Your task to perform on an android device: Play the last video I watched on Youtube Image 0: 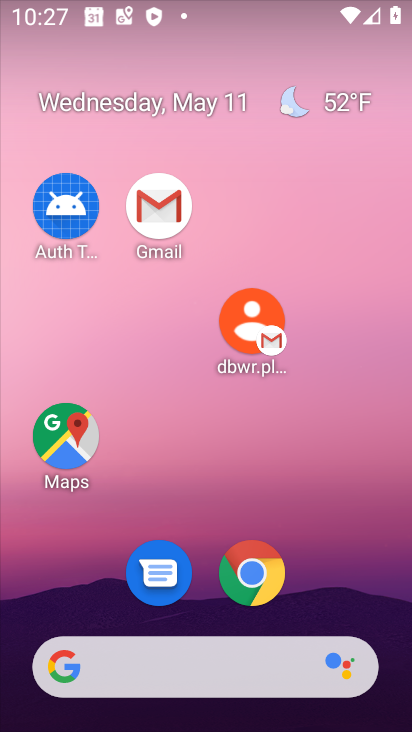
Step 0: drag from (317, 487) to (189, 129)
Your task to perform on an android device: Play the last video I watched on Youtube Image 1: 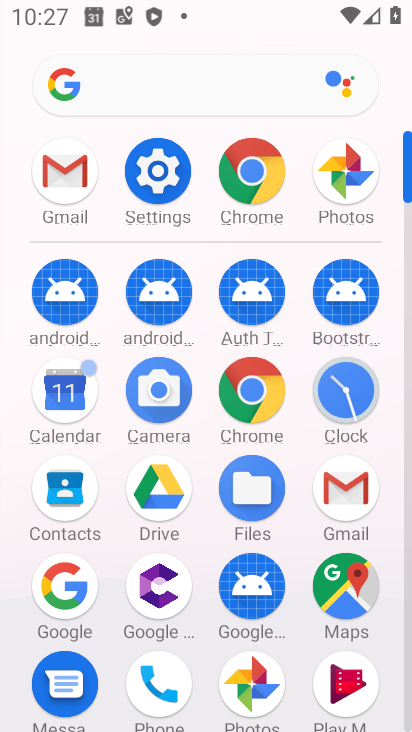
Step 1: drag from (212, 553) to (175, 107)
Your task to perform on an android device: Play the last video I watched on Youtube Image 2: 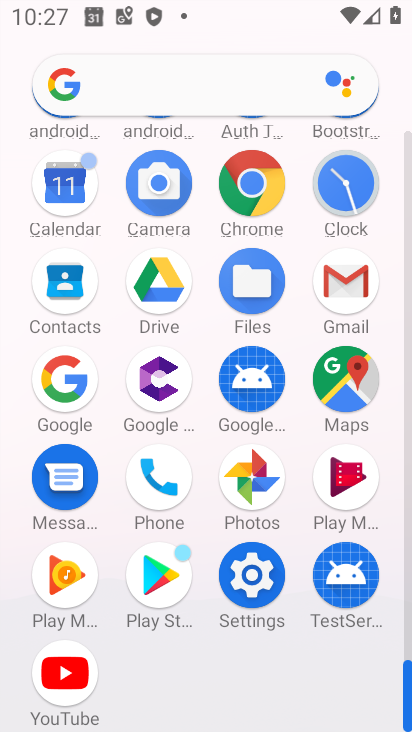
Step 2: click (50, 679)
Your task to perform on an android device: Play the last video I watched on Youtube Image 3: 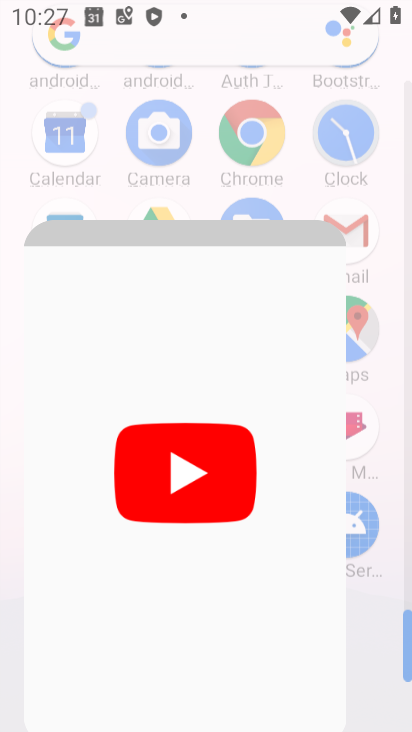
Step 3: click (53, 672)
Your task to perform on an android device: Play the last video I watched on Youtube Image 4: 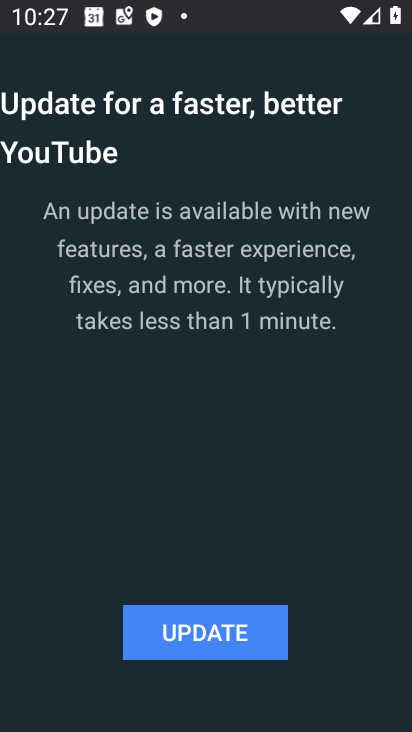
Step 4: click (214, 603)
Your task to perform on an android device: Play the last video I watched on Youtube Image 5: 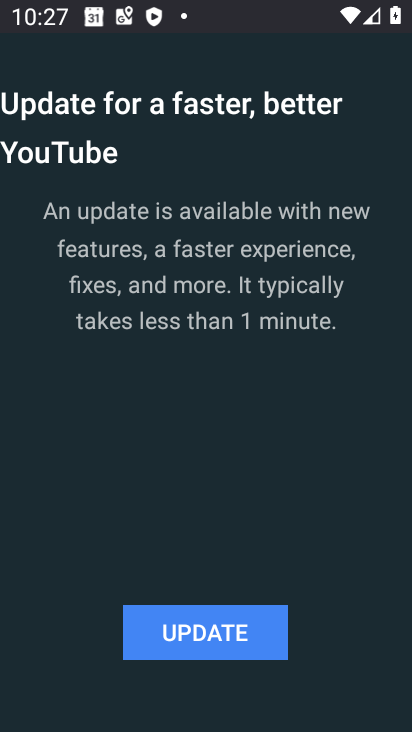
Step 5: click (215, 602)
Your task to perform on an android device: Play the last video I watched on Youtube Image 6: 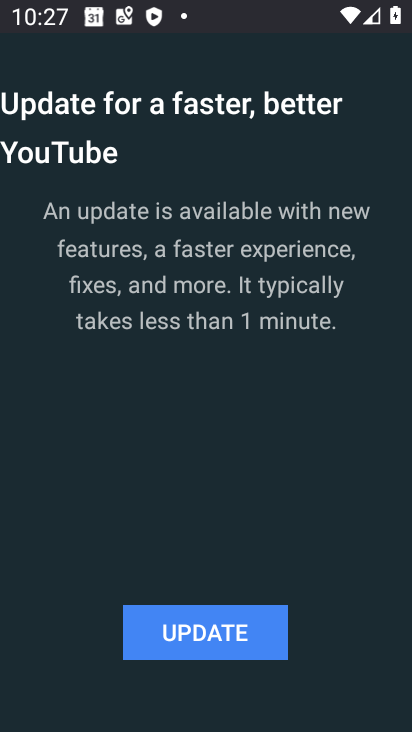
Step 6: click (215, 602)
Your task to perform on an android device: Play the last video I watched on Youtube Image 7: 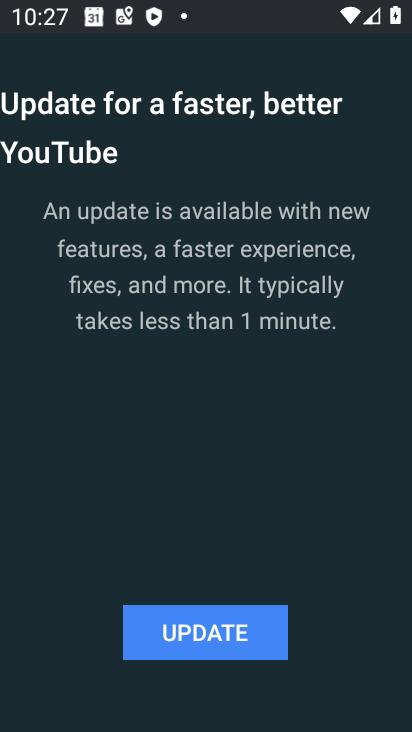
Step 7: click (213, 623)
Your task to perform on an android device: Play the last video I watched on Youtube Image 8: 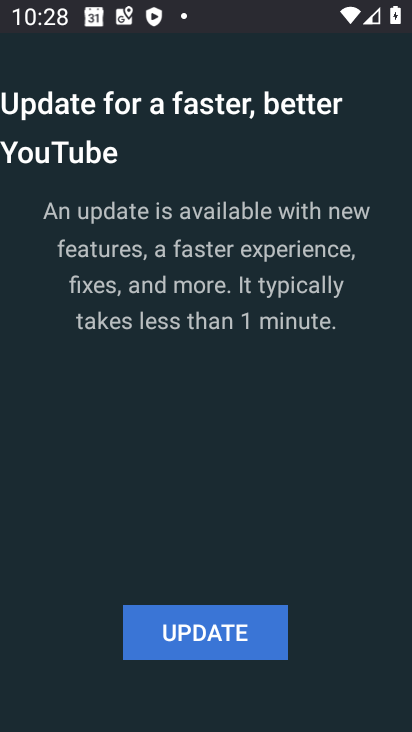
Step 8: click (205, 623)
Your task to perform on an android device: Play the last video I watched on Youtube Image 9: 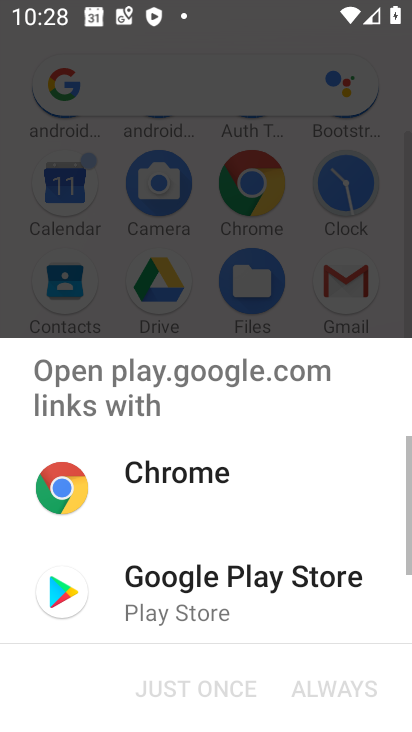
Step 9: click (203, 624)
Your task to perform on an android device: Play the last video I watched on Youtube Image 10: 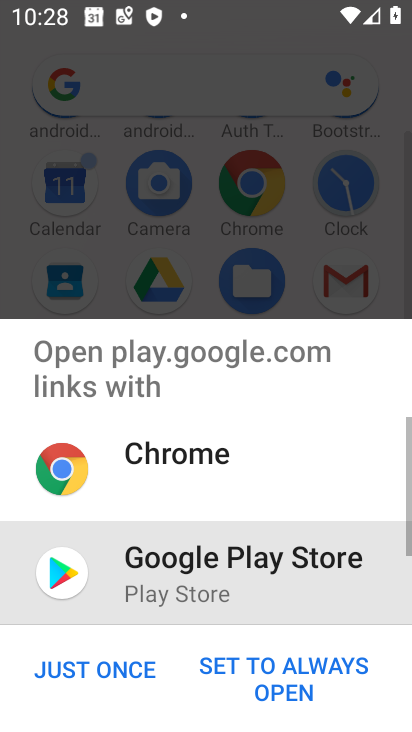
Step 10: click (166, 587)
Your task to perform on an android device: Play the last video I watched on Youtube Image 11: 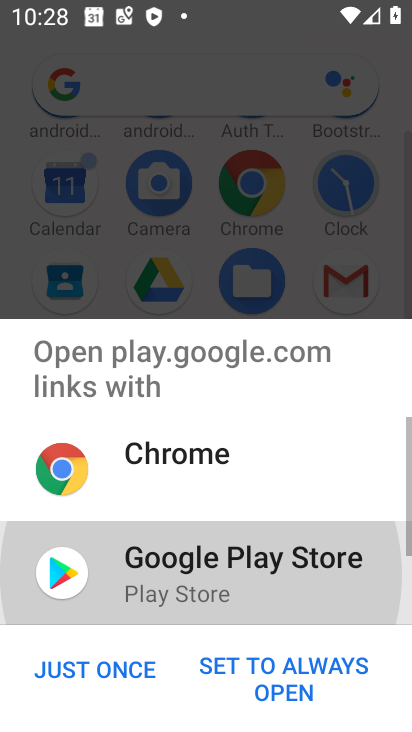
Step 11: click (146, 586)
Your task to perform on an android device: Play the last video I watched on Youtube Image 12: 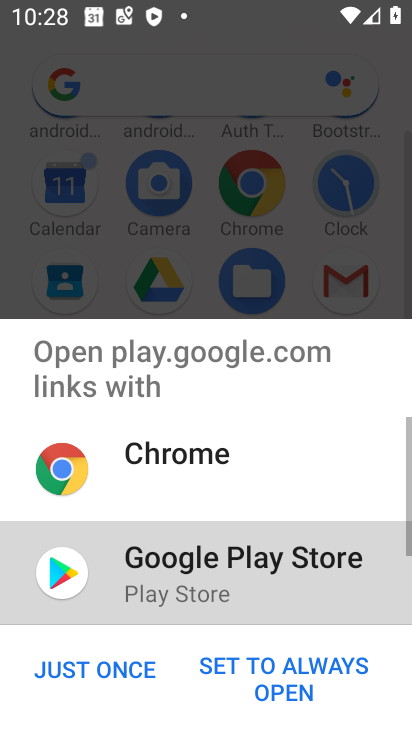
Step 12: click (146, 586)
Your task to perform on an android device: Play the last video I watched on Youtube Image 13: 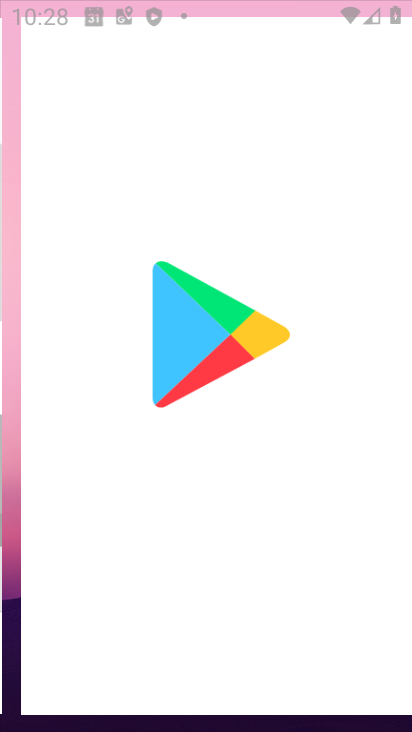
Step 13: click (146, 585)
Your task to perform on an android device: Play the last video I watched on Youtube Image 14: 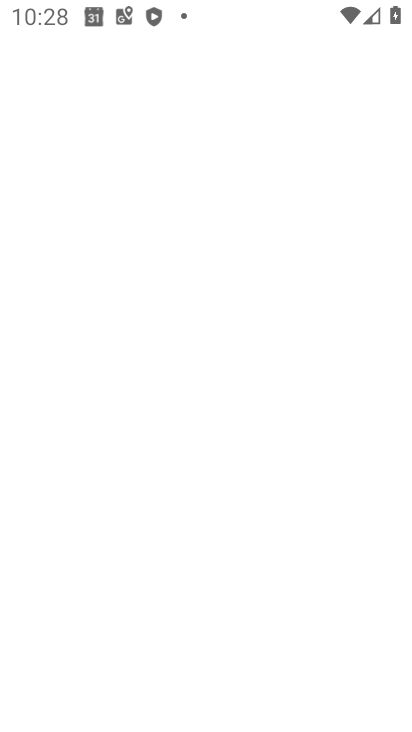
Step 14: click (146, 590)
Your task to perform on an android device: Play the last video I watched on Youtube Image 15: 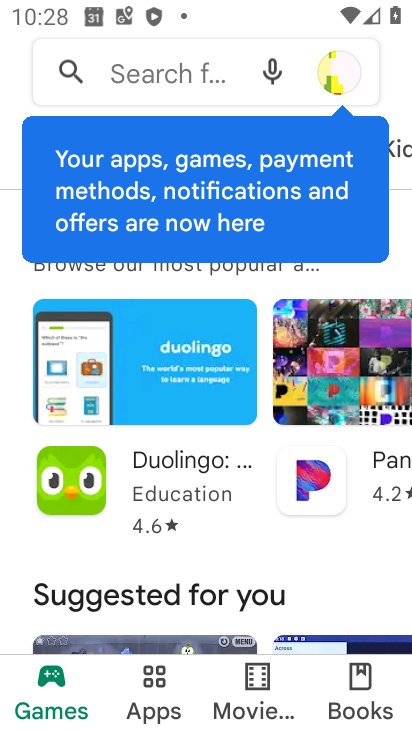
Step 15: press home button
Your task to perform on an android device: Play the last video I watched on Youtube Image 16: 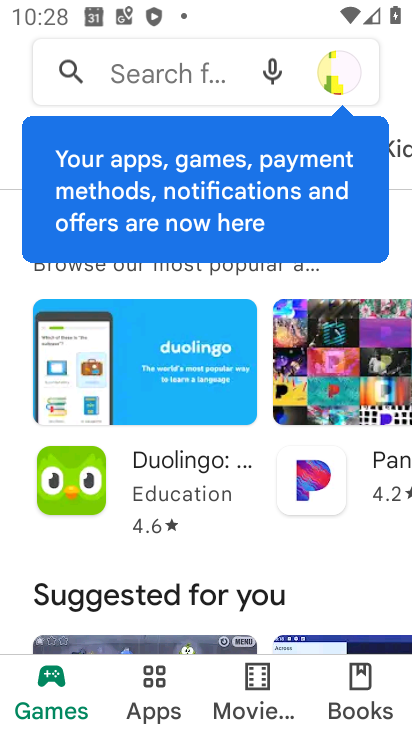
Step 16: press home button
Your task to perform on an android device: Play the last video I watched on Youtube Image 17: 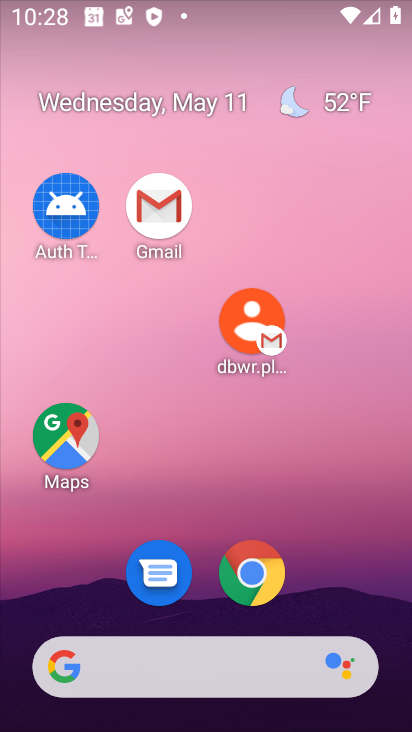
Step 17: drag from (395, 590) to (77, 127)
Your task to perform on an android device: Play the last video I watched on Youtube Image 18: 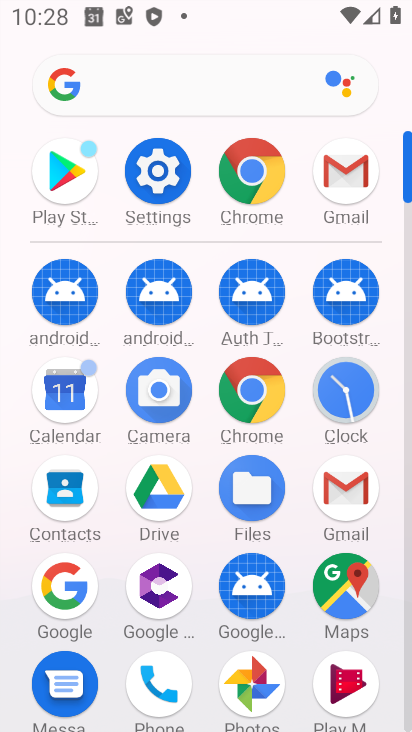
Step 18: drag from (299, 606) to (242, 253)
Your task to perform on an android device: Play the last video I watched on Youtube Image 19: 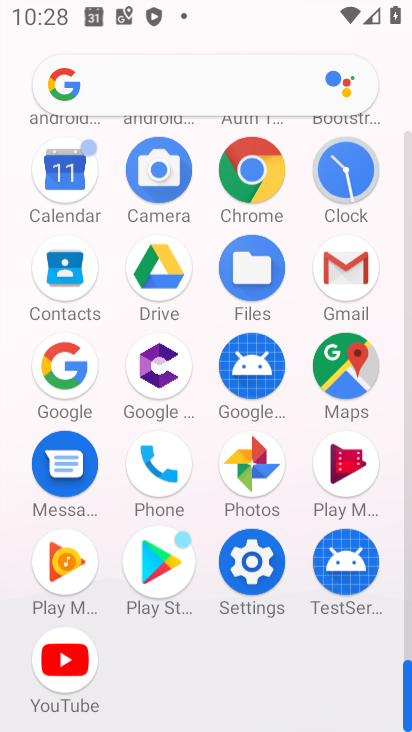
Step 19: drag from (270, 470) to (283, 29)
Your task to perform on an android device: Play the last video I watched on Youtube Image 20: 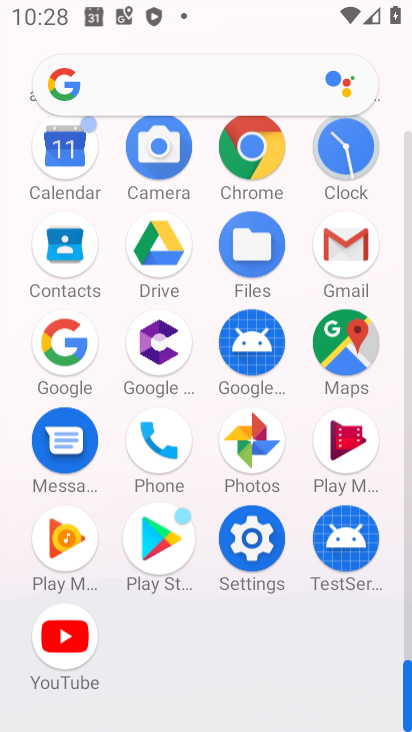
Step 20: drag from (301, 521) to (275, 184)
Your task to perform on an android device: Play the last video I watched on Youtube Image 21: 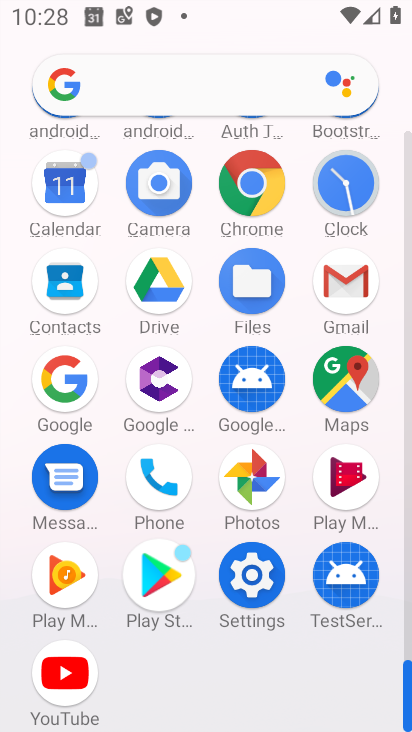
Step 21: click (74, 680)
Your task to perform on an android device: Play the last video I watched on Youtube Image 22: 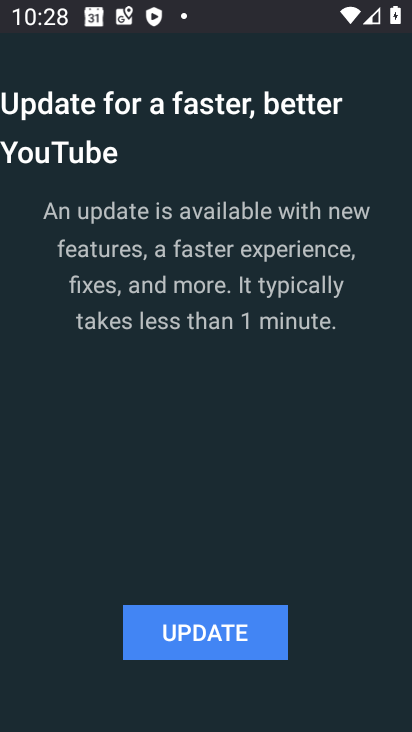
Step 22: click (182, 618)
Your task to perform on an android device: Play the last video I watched on Youtube Image 23: 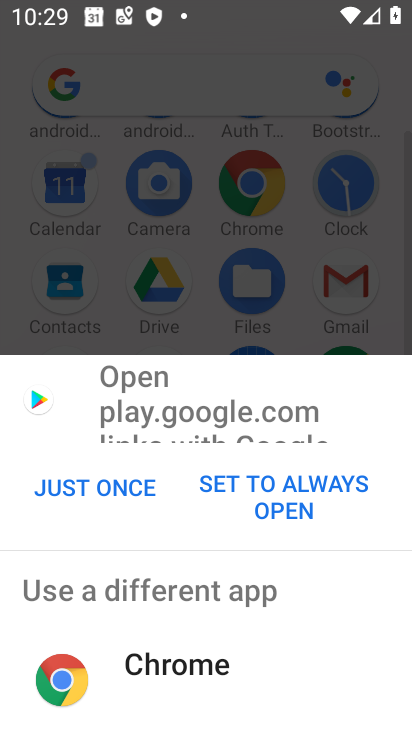
Step 23: click (175, 653)
Your task to perform on an android device: Play the last video I watched on Youtube Image 24: 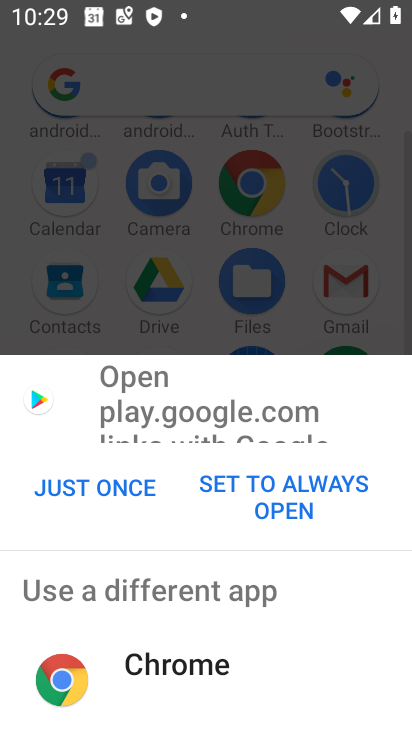
Step 24: click (175, 653)
Your task to perform on an android device: Play the last video I watched on Youtube Image 25: 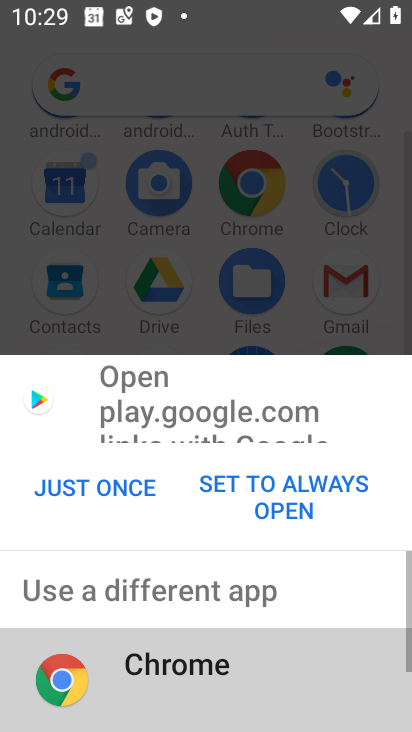
Step 25: click (176, 651)
Your task to perform on an android device: Play the last video I watched on Youtube Image 26: 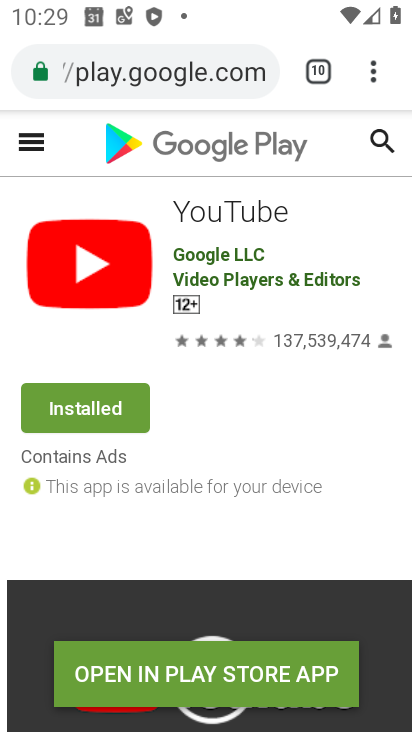
Step 26: press back button
Your task to perform on an android device: Play the last video I watched on Youtube Image 27: 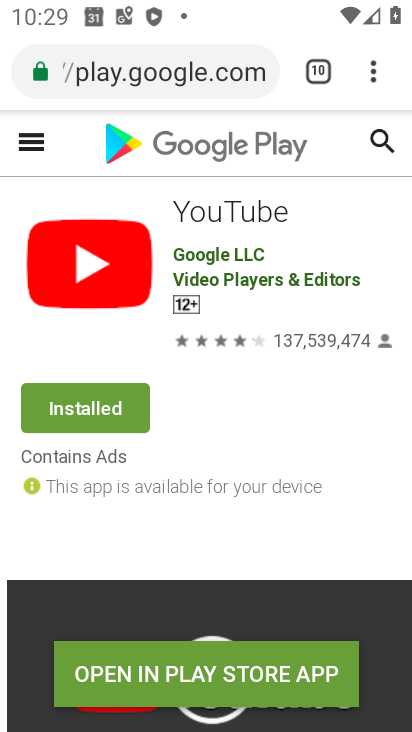
Step 27: press back button
Your task to perform on an android device: Play the last video I watched on Youtube Image 28: 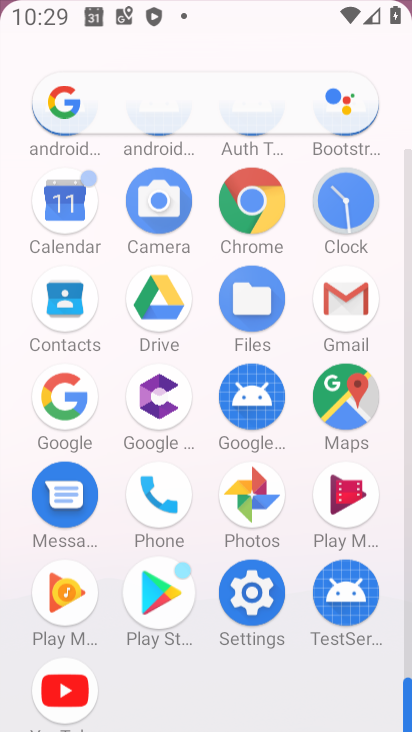
Step 28: press back button
Your task to perform on an android device: Play the last video I watched on Youtube Image 29: 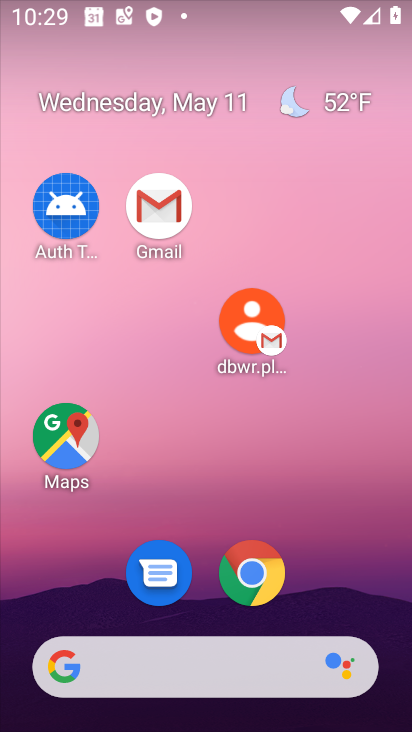
Step 29: press home button
Your task to perform on an android device: Play the last video I watched on Youtube Image 30: 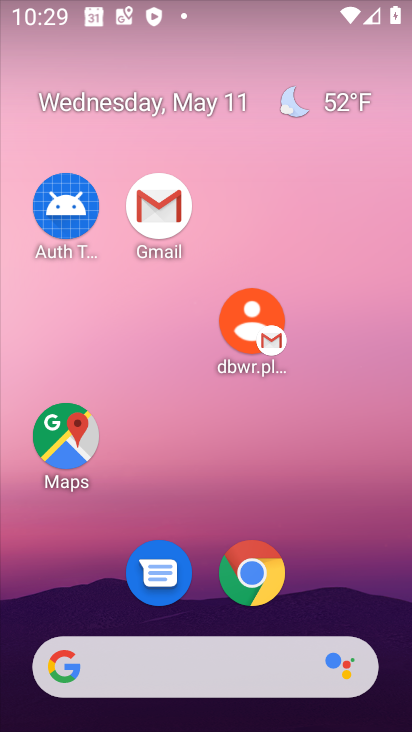
Step 30: drag from (355, 675) to (216, 113)
Your task to perform on an android device: Play the last video I watched on Youtube Image 31: 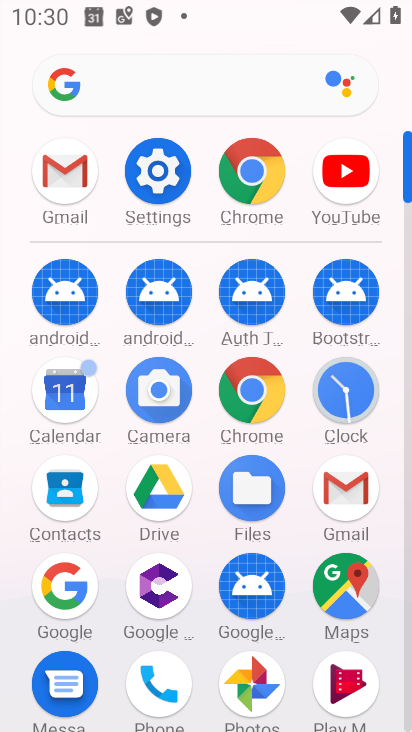
Step 31: click (351, 159)
Your task to perform on an android device: Play the last video I watched on Youtube Image 32: 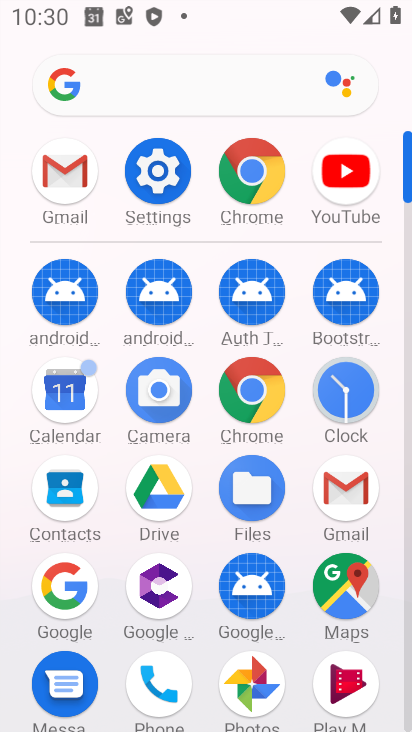
Step 32: click (350, 160)
Your task to perform on an android device: Play the last video I watched on Youtube Image 33: 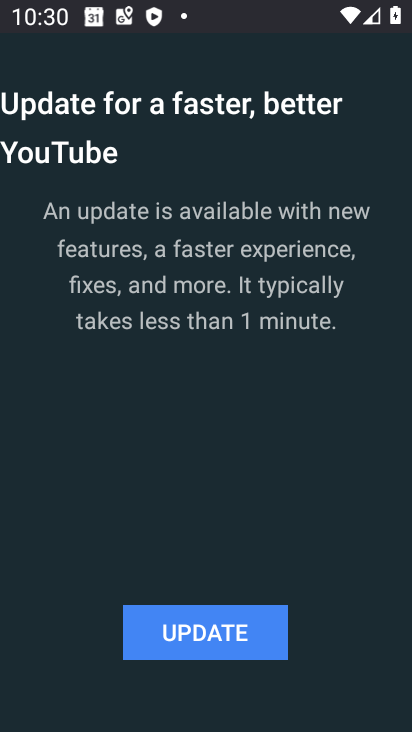
Step 33: click (176, 637)
Your task to perform on an android device: Play the last video I watched on Youtube Image 34: 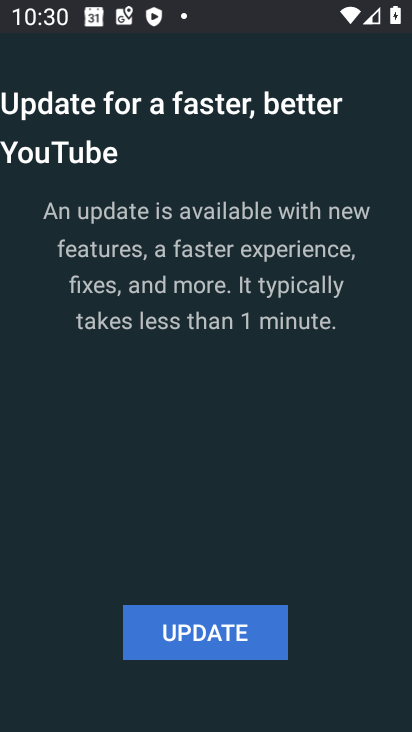
Step 34: click (171, 617)
Your task to perform on an android device: Play the last video I watched on Youtube Image 35: 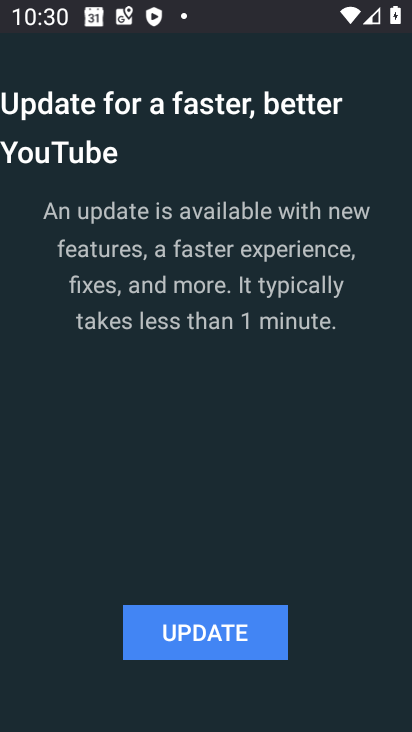
Step 35: click (161, 601)
Your task to perform on an android device: Play the last video I watched on Youtube Image 36: 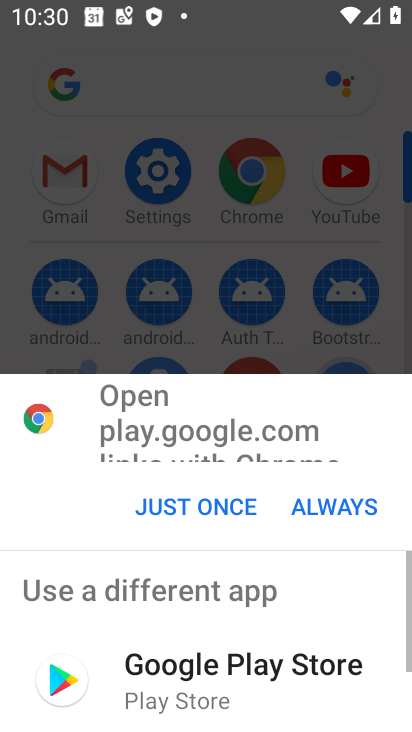
Step 36: click (228, 615)
Your task to perform on an android device: Play the last video I watched on Youtube Image 37: 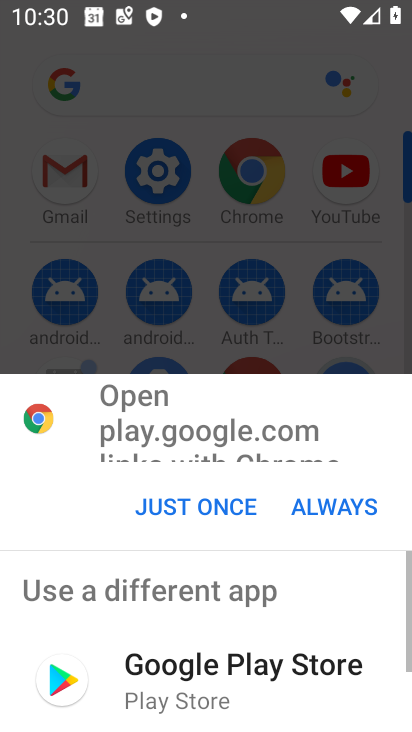
Step 37: click (168, 669)
Your task to perform on an android device: Play the last video I watched on Youtube Image 38: 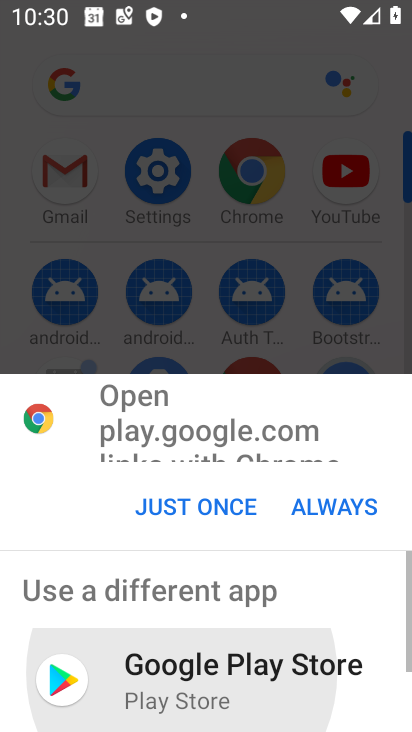
Step 38: click (171, 671)
Your task to perform on an android device: Play the last video I watched on Youtube Image 39: 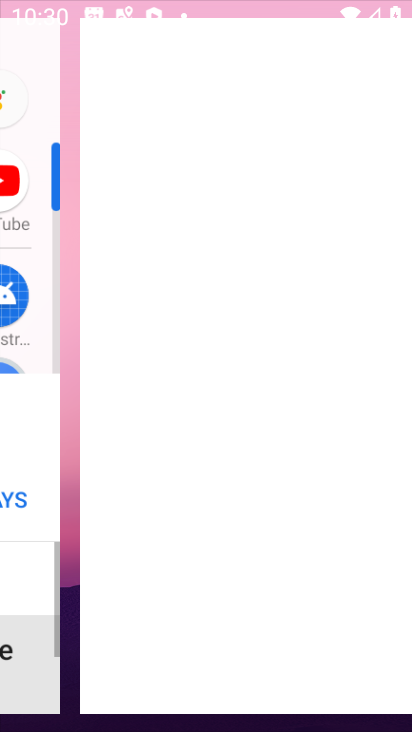
Step 39: click (171, 666)
Your task to perform on an android device: Play the last video I watched on Youtube Image 40: 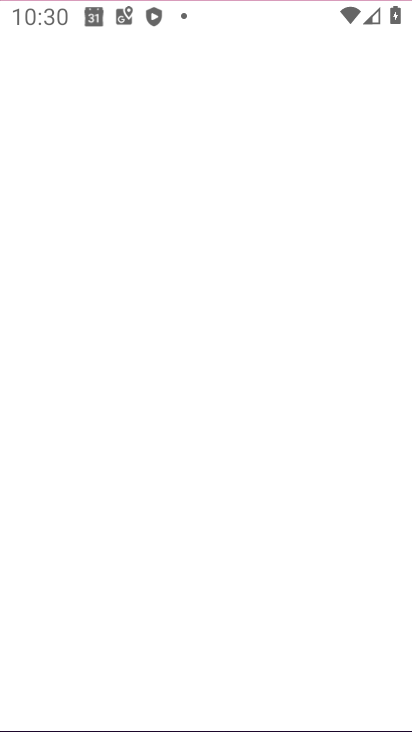
Step 40: click (171, 675)
Your task to perform on an android device: Play the last video I watched on Youtube Image 41: 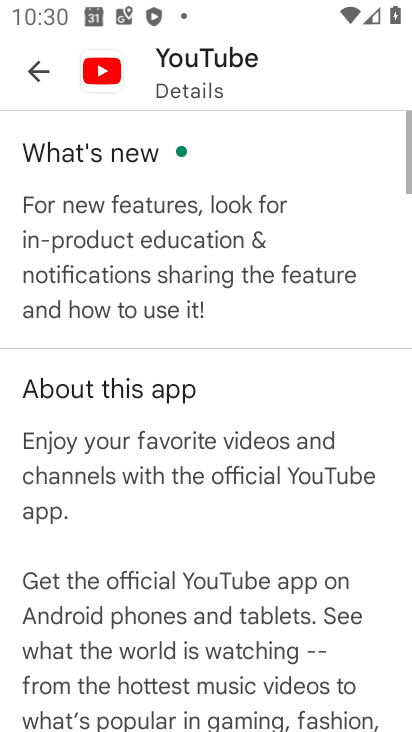
Step 41: click (227, 288)
Your task to perform on an android device: Play the last video I watched on Youtube Image 42: 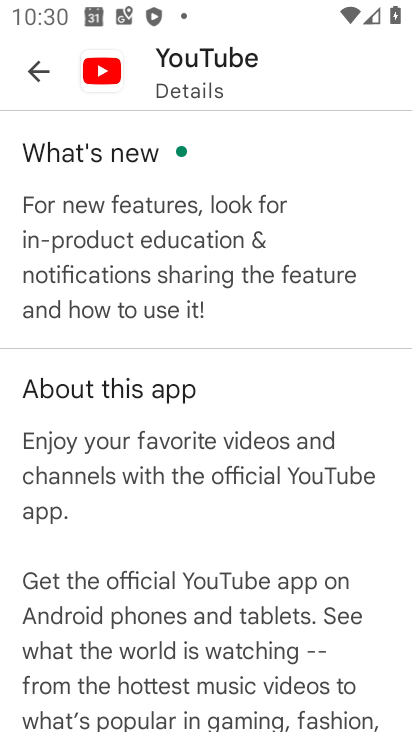
Step 42: click (44, 75)
Your task to perform on an android device: Play the last video I watched on Youtube Image 43: 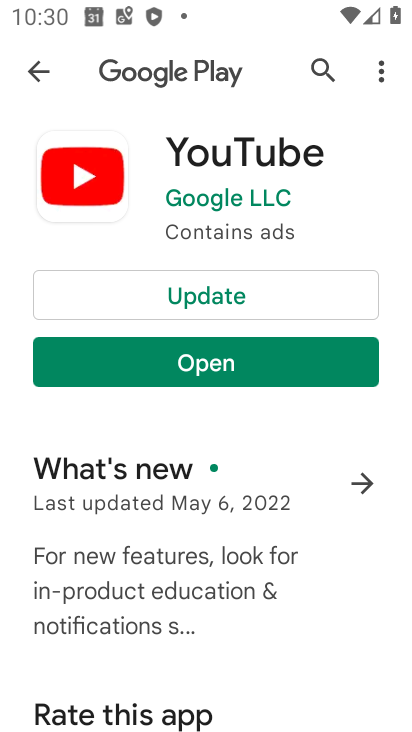
Step 43: click (195, 285)
Your task to perform on an android device: Play the last video I watched on Youtube Image 44: 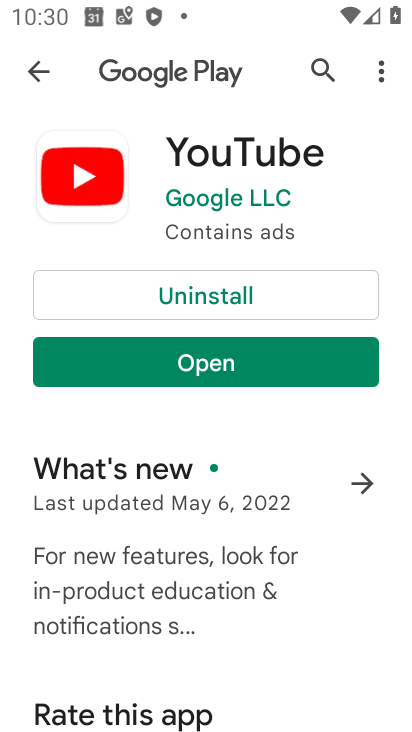
Step 44: click (199, 358)
Your task to perform on an android device: Play the last video I watched on Youtube Image 45: 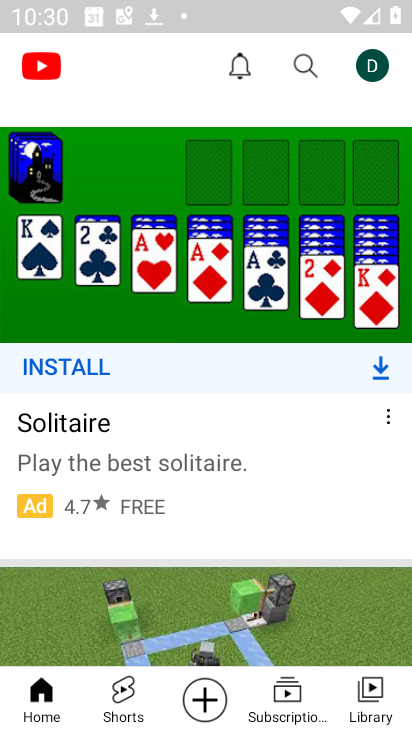
Step 45: drag from (285, 504) to (194, 2)
Your task to perform on an android device: Play the last video I watched on Youtube Image 46: 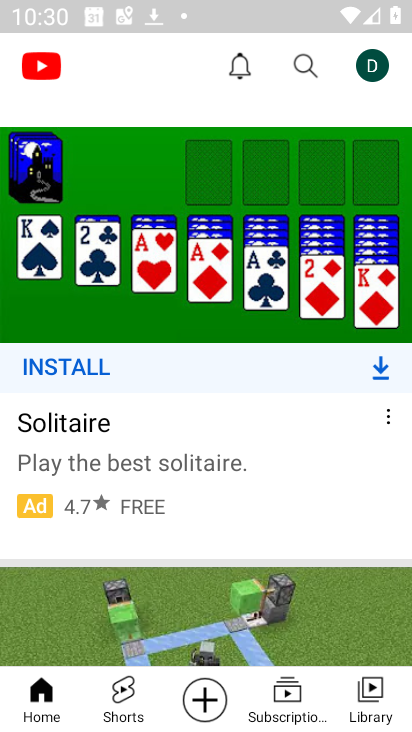
Step 46: drag from (194, 424) to (191, 1)
Your task to perform on an android device: Play the last video I watched on Youtube Image 47: 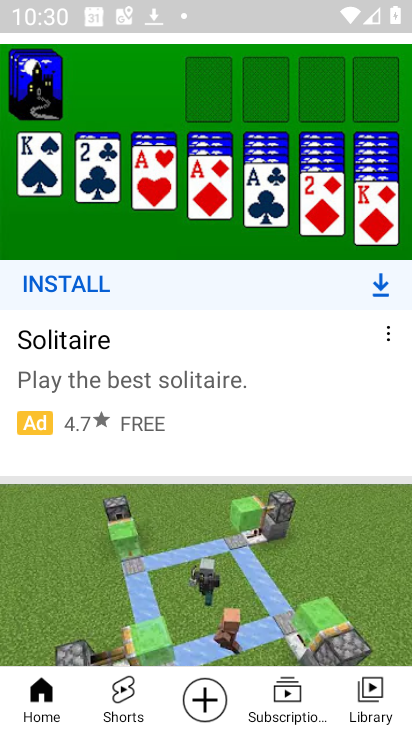
Step 47: drag from (158, 344) to (175, 0)
Your task to perform on an android device: Play the last video I watched on Youtube Image 48: 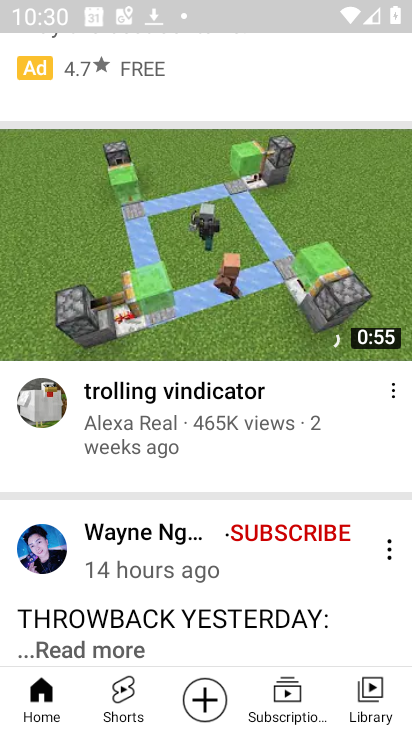
Step 48: drag from (178, 429) to (203, 106)
Your task to perform on an android device: Play the last video I watched on Youtube Image 49: 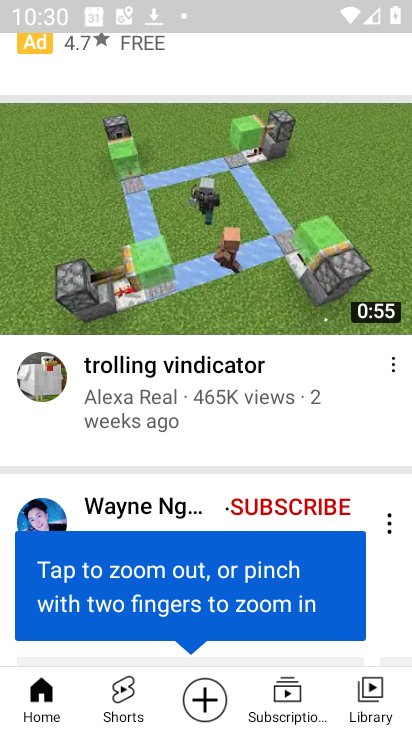
Step 49: drag from (265, 269) to (285, 27)
Your task to perform on an android device: Play the last video I watched on Youtube Image 50: 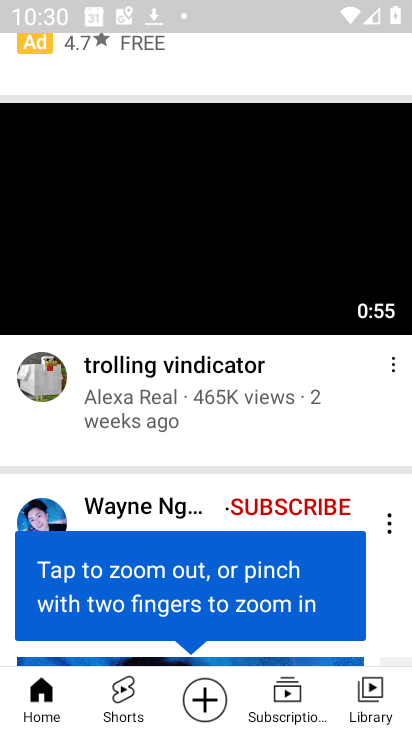
Step 50: click (333, 62)
Your task to perform on an android device: Play the last video I watched on Youtube Image 51: 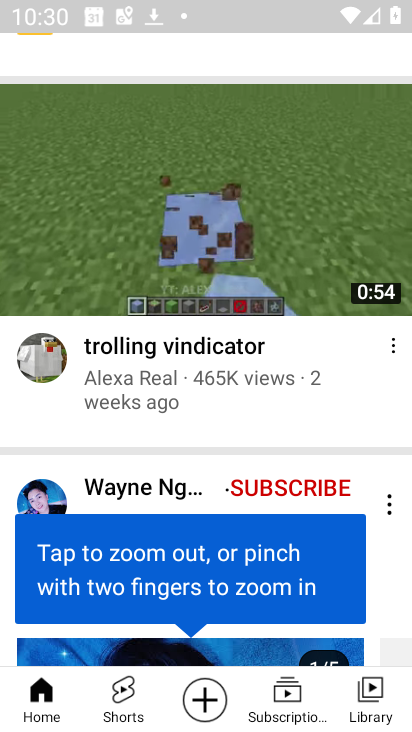
Step 51: drag from (270, 261) to (260, 148)
Your task to perform on an android device: Play the last video I watched on Youtube Image 52: 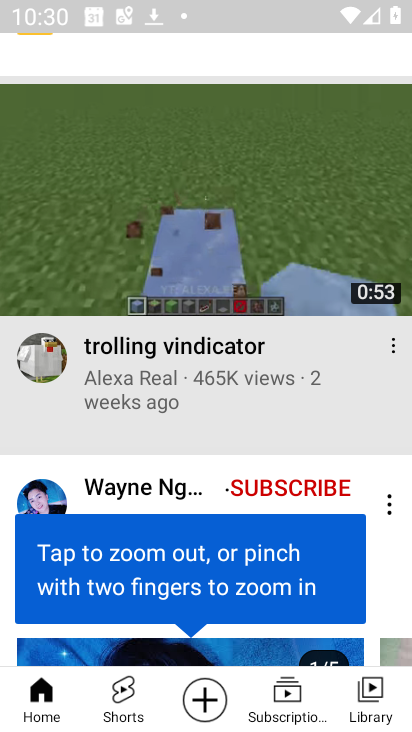
Step 52: drag from (271, 332) to (266, 5)
Your task to perform on an android device: Play the last video I watched on Youtube Image 53: 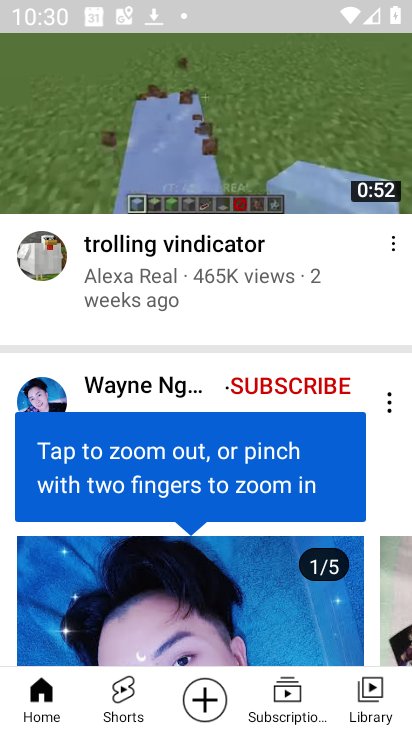
Step 53: click (234, 223)
Your task to perform on an android device: Play the last video I watched on Youtube Image 54: 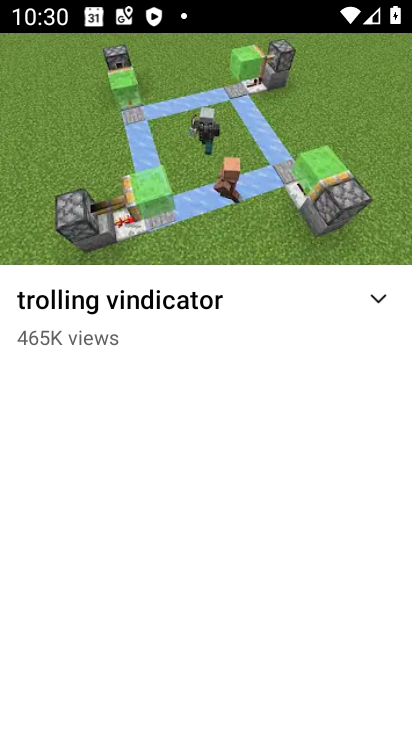
Step 54: click (234, 153)
Your task to perform on an android device: Play the last video I watched on Youtube Image 55: 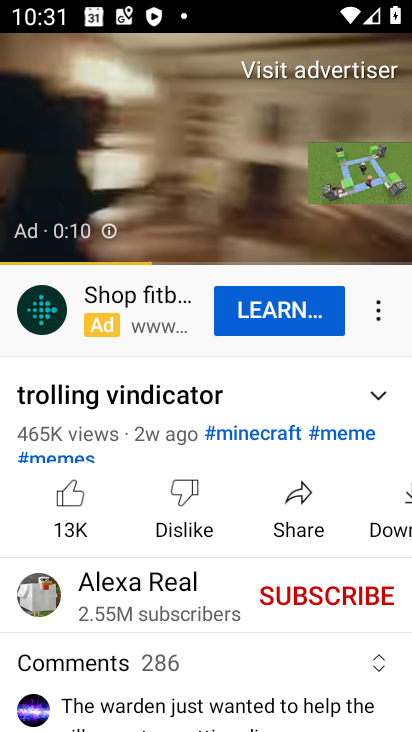
Step 55: task complete